Your task to perform on an android device: toggle javascript in the chrome app Image 0: 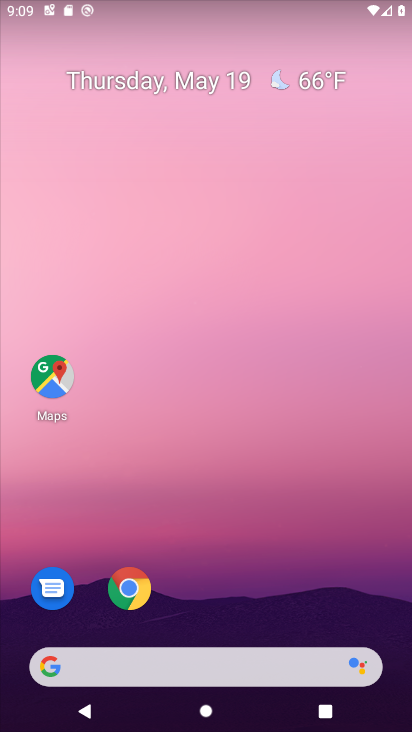
Step 0: drag from (371, 612) to (369, 303)
Your task to perform on an android device: toggle javascript in the chrome app Image 1: 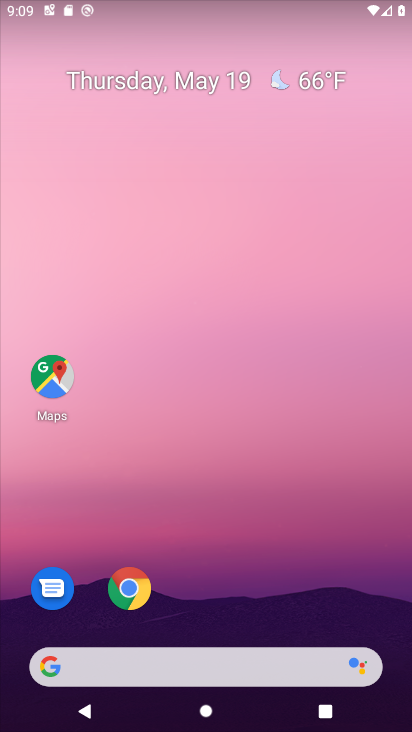
Step 1: drag from (361, 554) to (341, 223)
Your task to perform on an android device: toggle javascript in the chrome app Image 2: 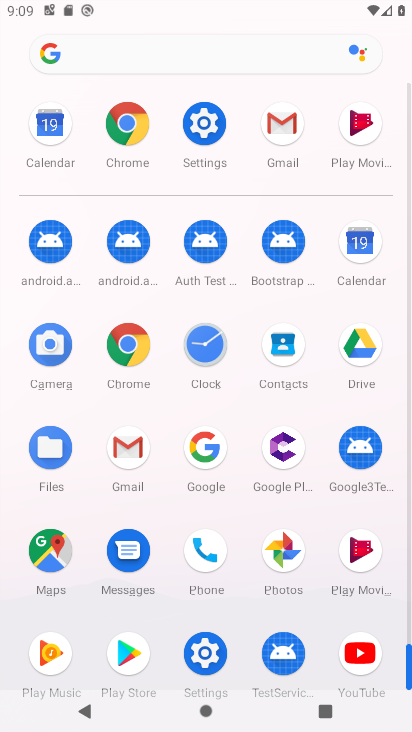
Step 2: drag from (248, 597) to (243, 393)
Your task to perform on an android device: toggle javascript in the chrome app Image 3: 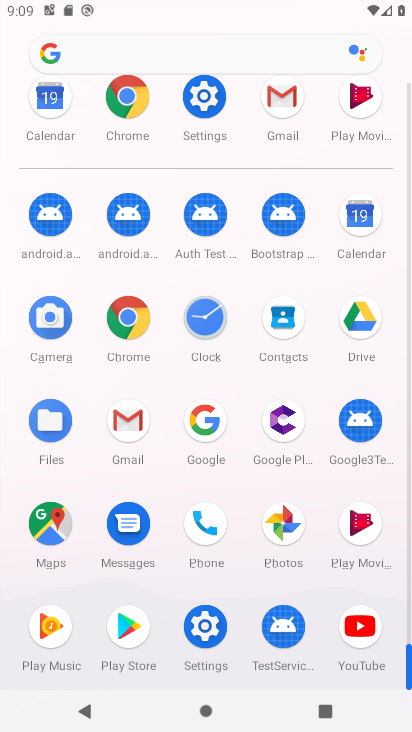
Step 3: click (131, 344)
Your task to perform on an android device: toggle javascript in the chrome app Image 4: 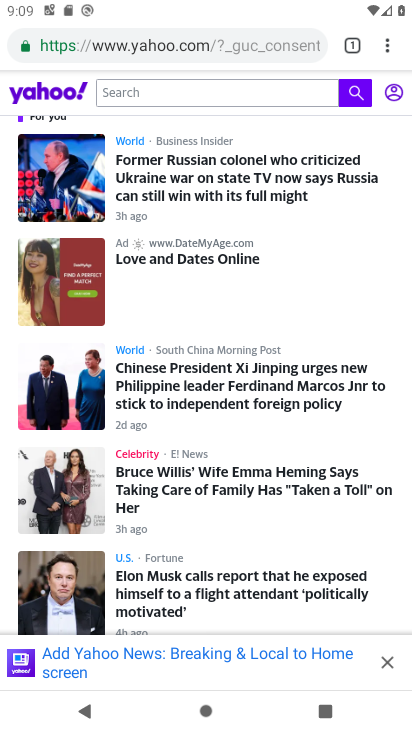
Step 4: click (387, 49)
Your task to perform on an android device: toggle javascript in the chrome app Image 5: 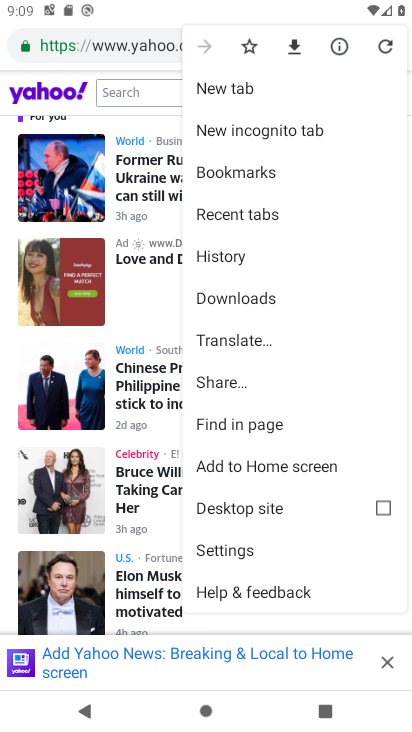
Step 5: click (269, 552)
Your task to perform on an android device: toggle javascript in the chrome app Image 6: 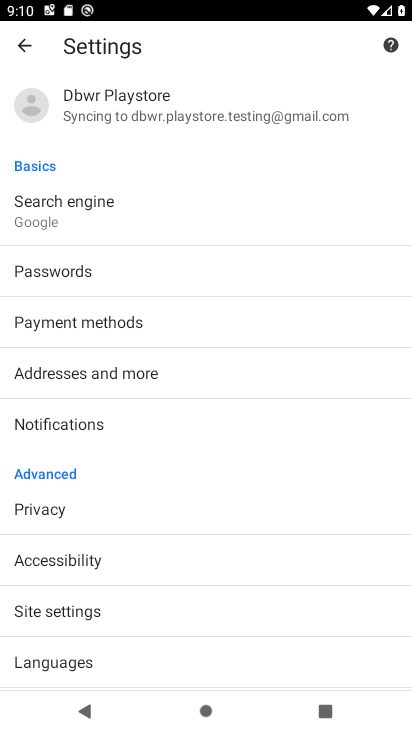
Step 6: drag from (288, 607) to (317, 471)
Your task to perform on an android device: toggle javascript in the chrome app Image 7: 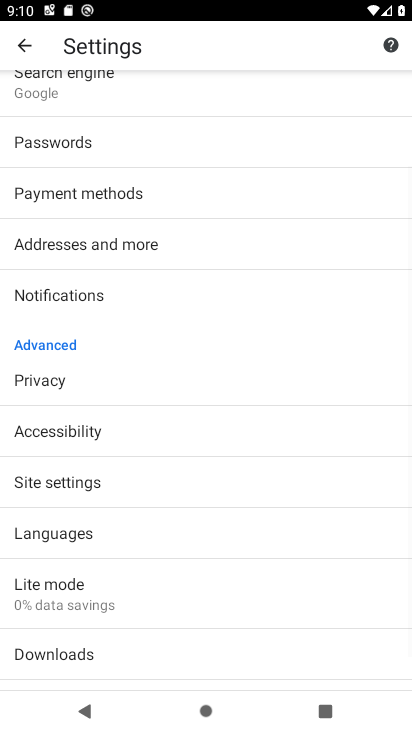
Step 7: drag from (330, 655) to (341, 516)
Your task to perform on an android device: toggle javascript in the chrome app Image 8: 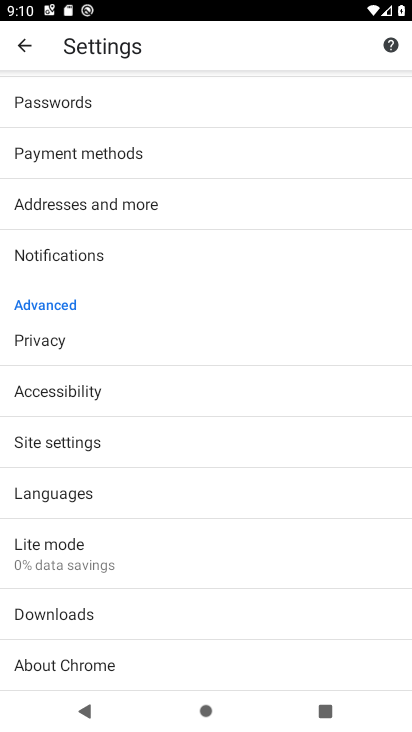
Step 8: drag from (329, 400) to (318, 497)
Your task to perform on an android device: toggle javascript in the chrome app Image 9: 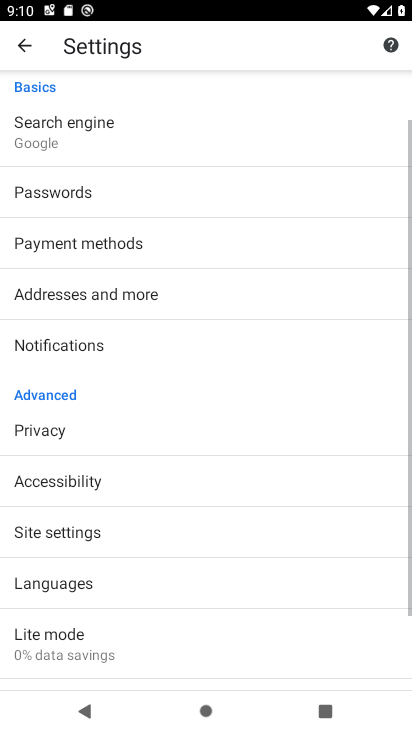
Step 9: drag from (329, 368) to (322, 551)
Your task to perform on an android device: toggle javascript in the chrome app Image 10: 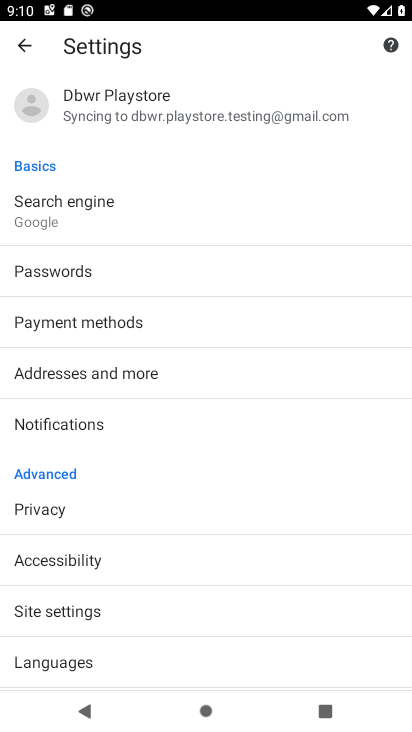
Step 10: click (308, 624)
Your task to perform on an android device: toggle javascript in the chrome app Image 11: 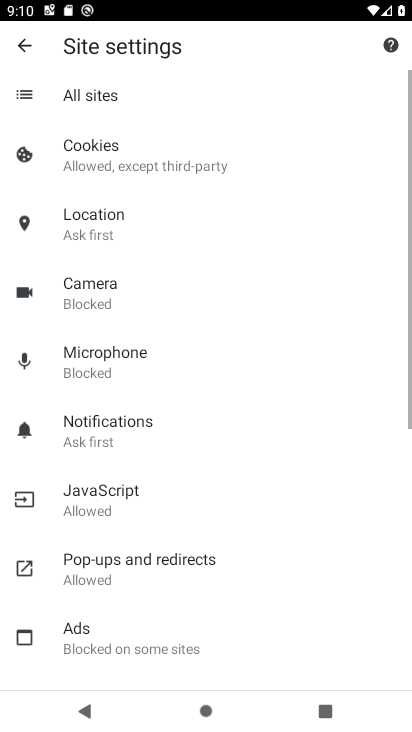
Step 11: drag from (308, 624) to (317, 510)
Your task to perform on an android device: toggle javascript in the chrome app Image 12: 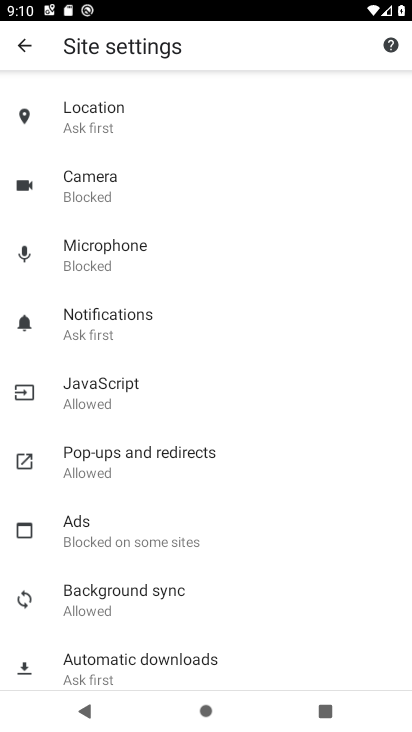
Step 12: drag from (322, 615) to (326, 478)
Your task to perform on an android device: toggle javascript in the chrome app Image 13: 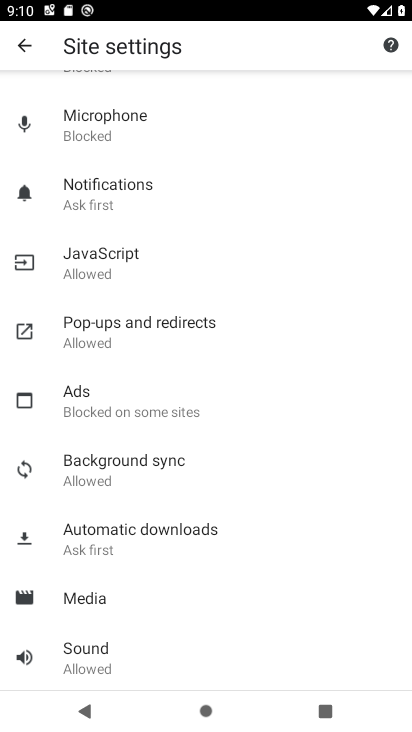
Step 13: drag from (354, 596) to (360, 423)
Your task to perform on an android device: toggle javascript in the chrome app Image 14: 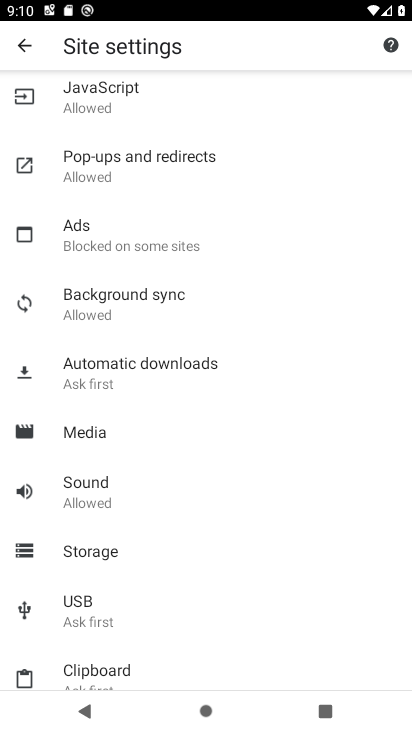
Step 14: drag from (363, 597) to (368, 427)
Your task to perform on an android device: toggle javascript in the chrome app Image 15: 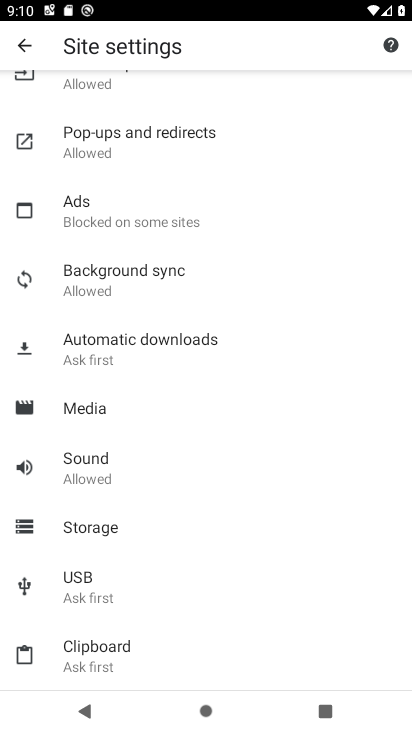
Step 15: drag from (334, 604) to (342, 437)
Your task to perform on an android device: toggle javascript in the chrome app Image 16: 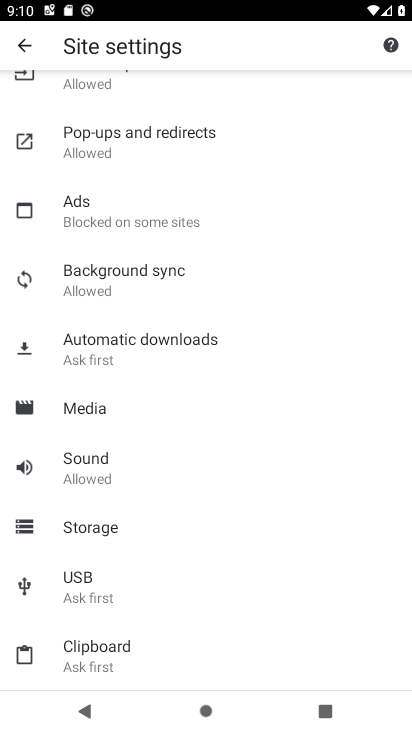
Step 16: drag from (326, 361) to (315, 515)
Your task to perform on an android device: toggle javascript in the chrome app Image 17: 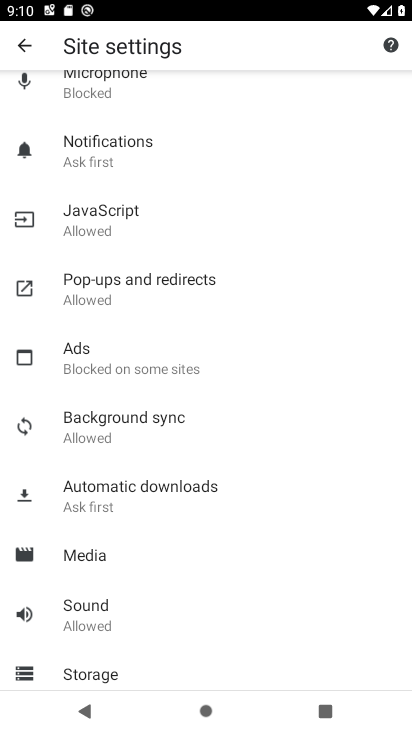
Step 17: drag from (324, 388) to (330, 500)
Your task to perform on an android device: toggle javascript in the chrome app Image 18: 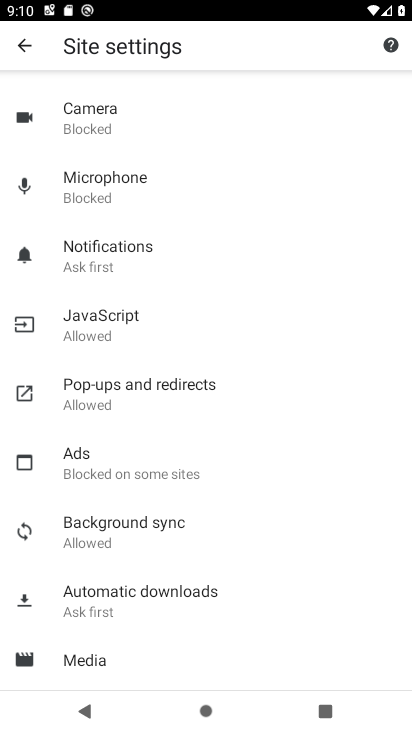
Step 18: drag from (333, 329) to (334, 512)
Your task to perform on an android device: toggle javascript in the chrome app Image 19: 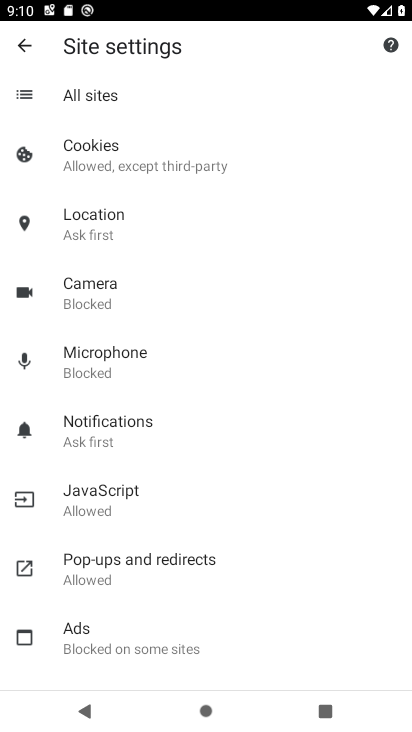
Step 19: drag from (339, 311) to (318, 464)
Your task to perform on an android device: toggle javascript in the chrome app Image 20: 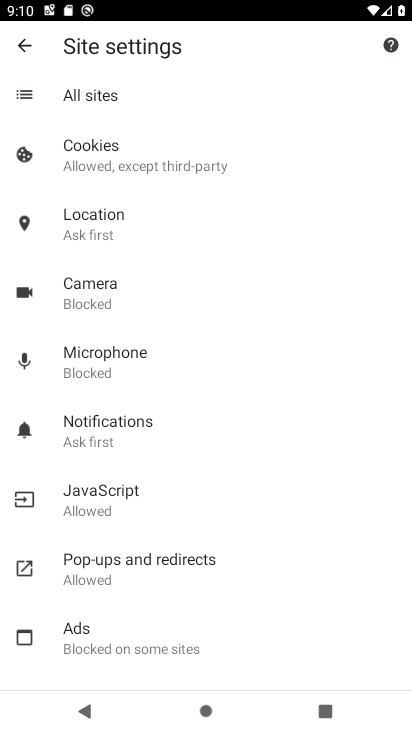
Step 20: click (100, 500)
Your task to perform on an android device: toggle javascript in the chrome app Image 21: 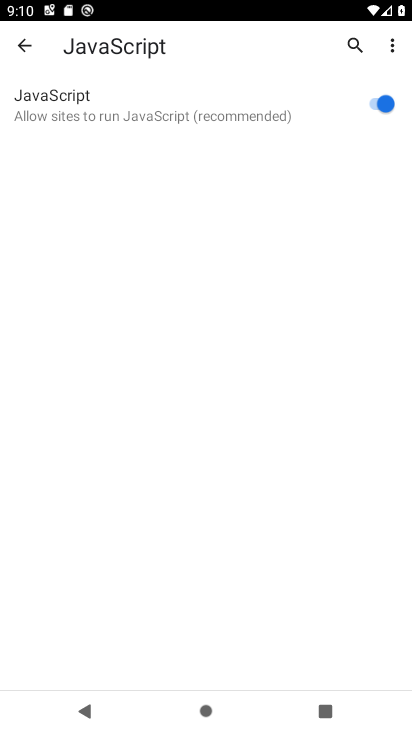
Step 21: task complete